Your task to perform on an android device: turn on javascript in the chrome app Image 0: 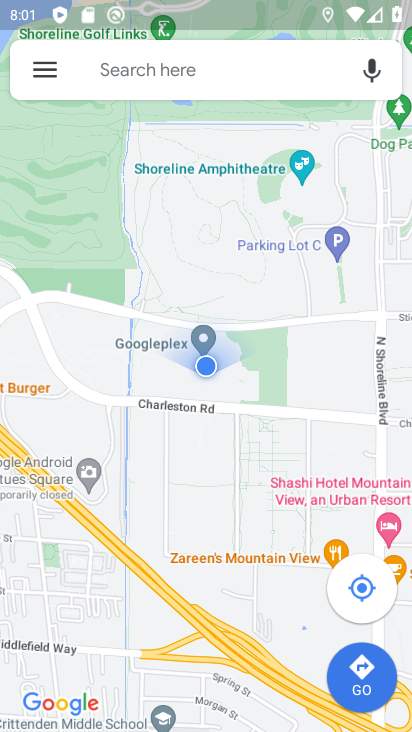
Step 0: press back button
Your task to perform on an android device: turn on javascript in the chrome app Image 1: 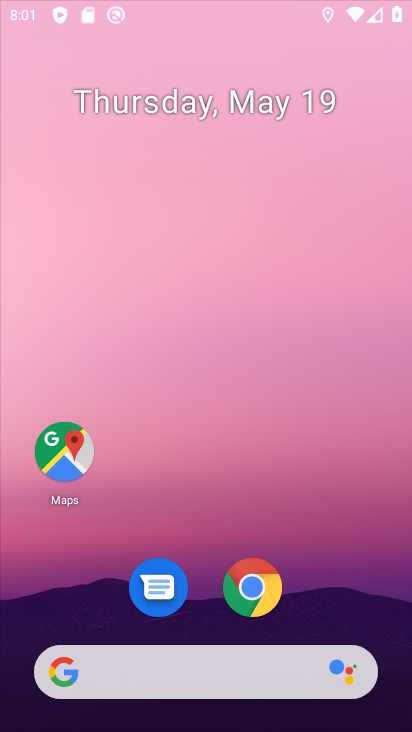
Step 1: press home button
Your task to perform on an android device: turn on javascript in the chrome app Image 2: 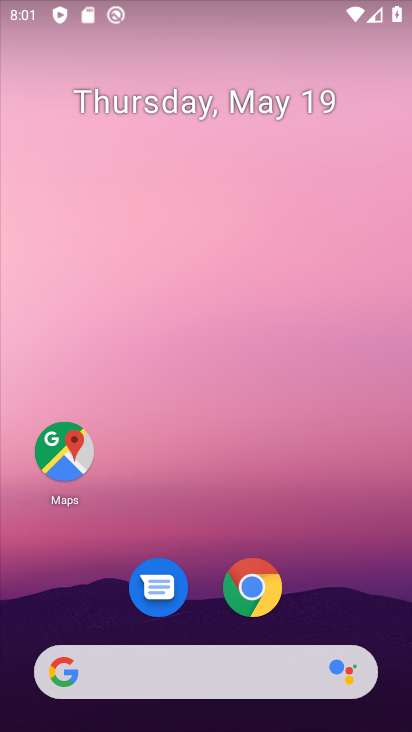
Step 2: press home button
Your task to perform on an android device: turn on javascript in the chrome app Image 3: 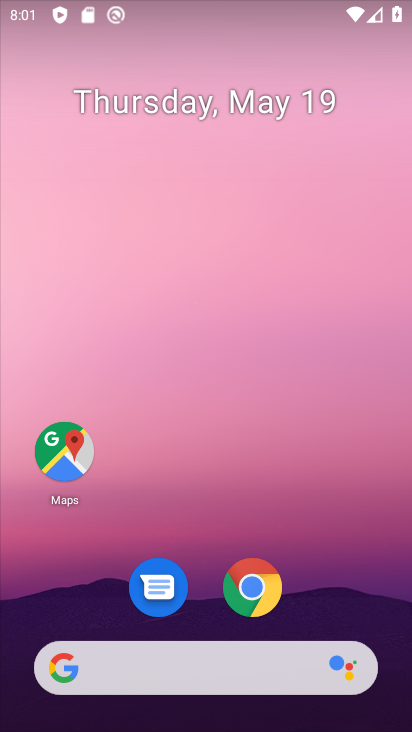
Step 3: drag from (308, 621) to (258, 21)
Your task to perform on an android device: turn on javascript in the chrome app Image 4: 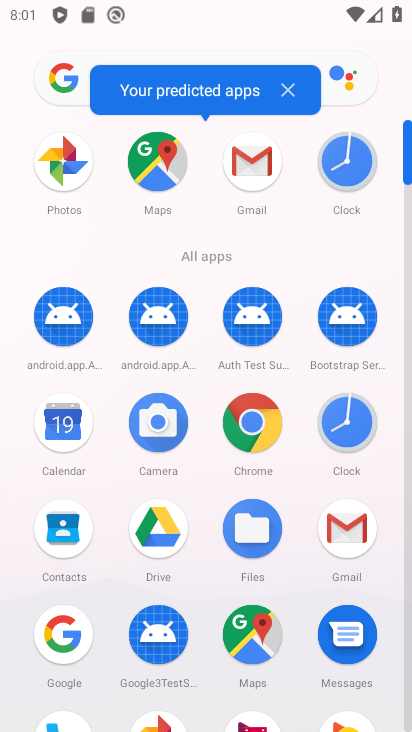
Step 4: click (262, 428)
Your task to perform on an android device: turn on javascript in the chrome app Image 5: 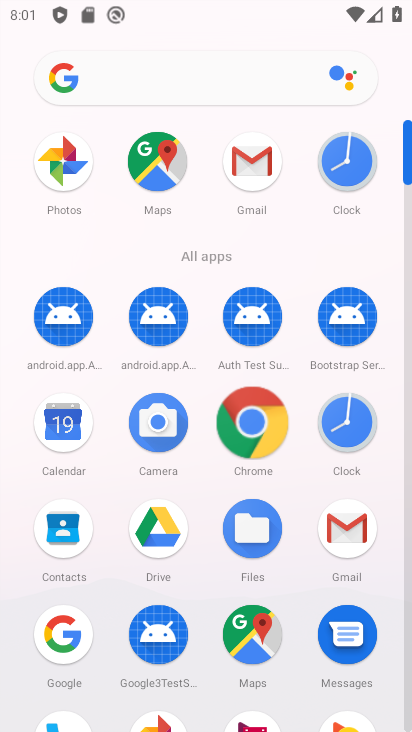
Step 5: click (246, 413)
Your task to perform on an android device: turn on javascript in the chrome app Image 6: 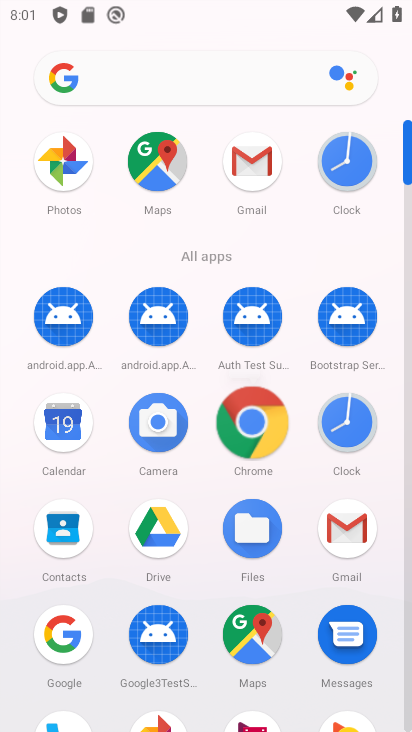
Step 6: click (246, 413)
Your task to perform on an android device: turn on javascript in the chrome app Image 7: 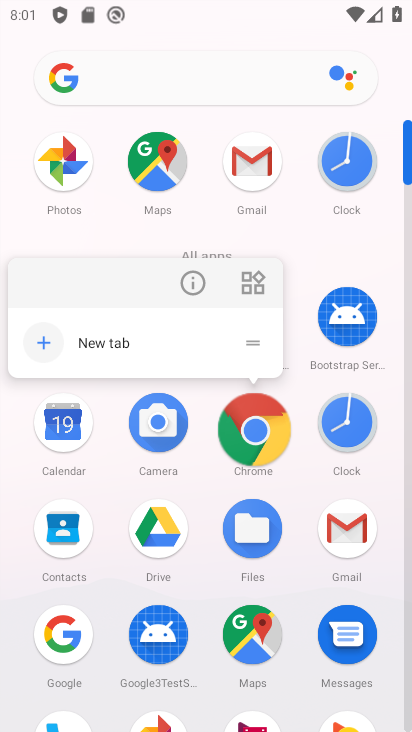
Step 7: click (252, 415)
Your task to perform on an android device: turn on javascript in the chrome app Image 8: 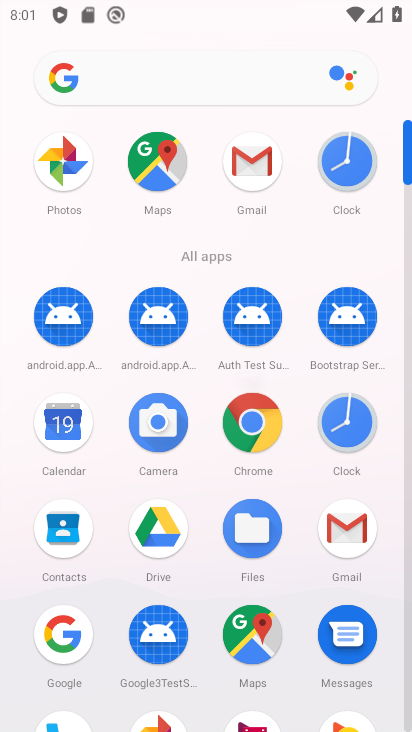
Step 8: click (252, 415)
Your task to perform on an android device: turn on javascript in the chrome app Image 9: 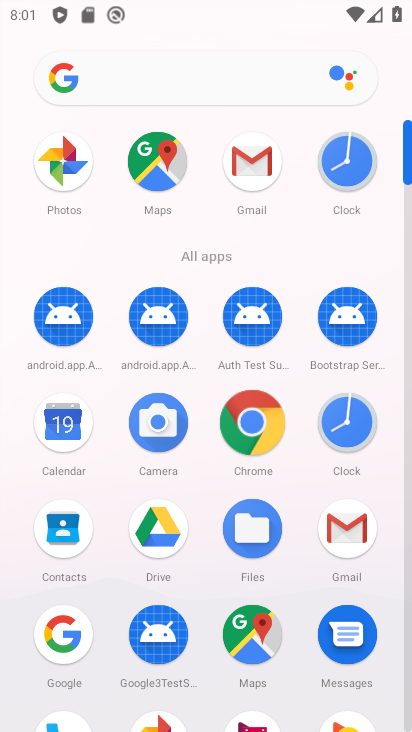
Step 9: click (254, 418)
Your task to perform on an android device: turn on javascript in the chrome app Image 10: 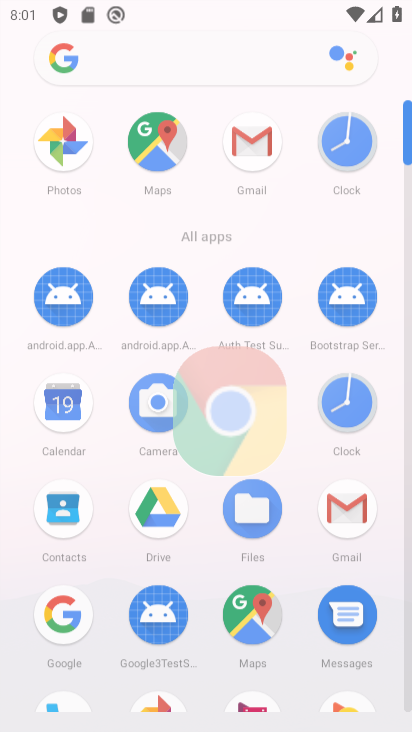
Step 10: click (254, 417)
Your task to perform on an android device: turn on javascript in the chrome app Image 11: 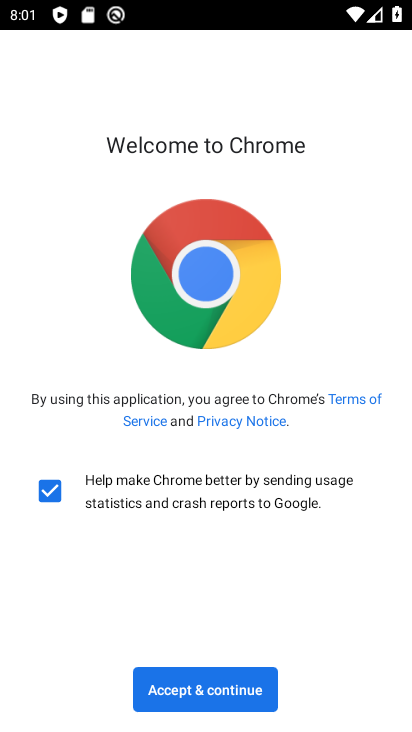
Step 11: click (213, 685)
Your task to perform on an android device: turn on javascript in the chrome app Image 12: 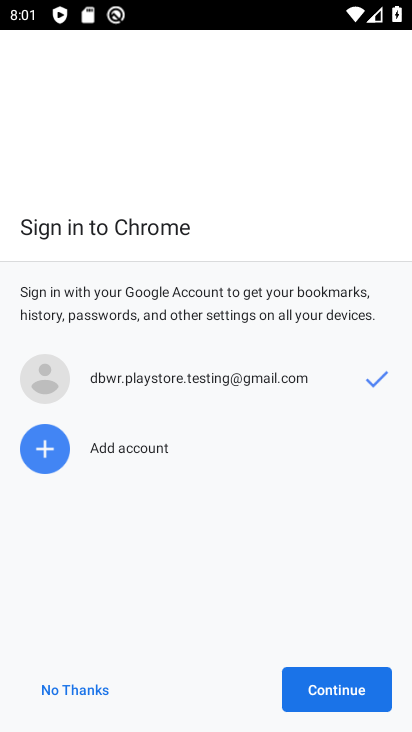
Step 12: click (215, 683)
Your task to perform on an android device: turn on javascript in the chrome app Image 13: 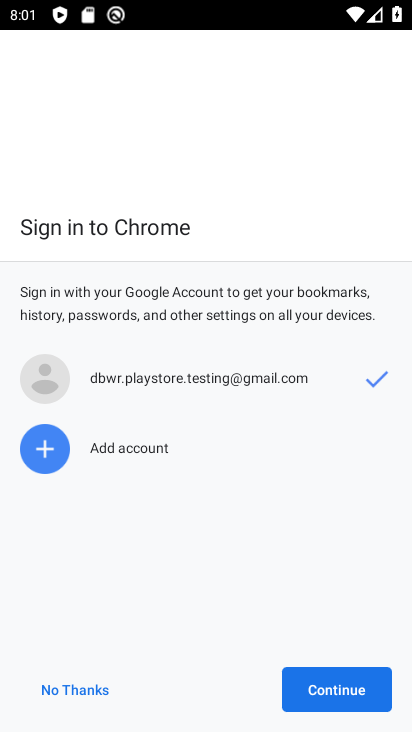
Step 13: click (316, 691)
Your task to perform on an android device: turn on javascript in the chrome app Image 14: 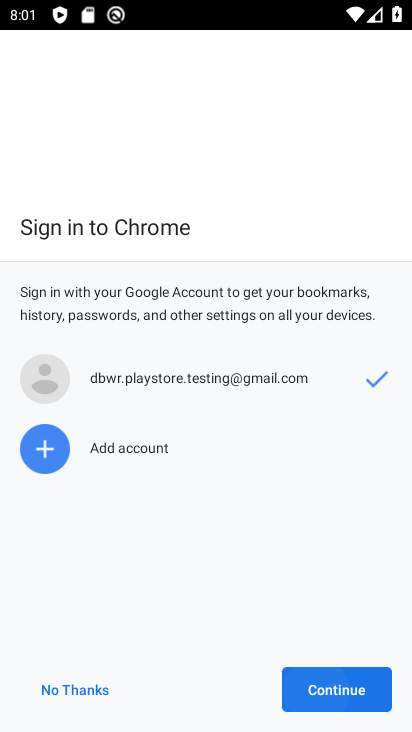
Step 14: click (322, 687)
Your task to perform on an android device: turn on javascript in the chrome app Image 15: 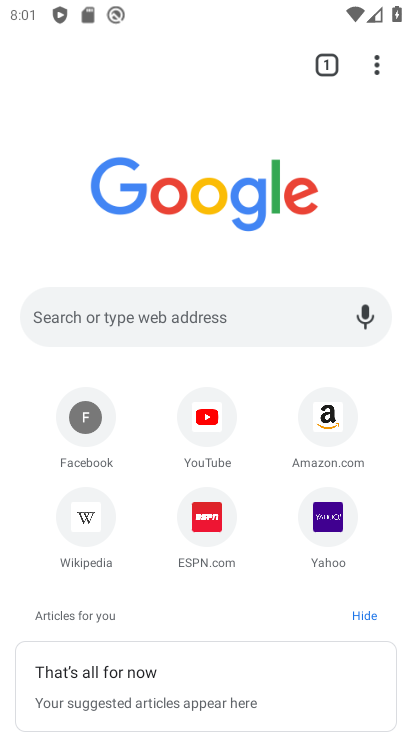
Step 15: drag from (373, 69) to (123, 541)
Your task to perform on an android device: turn on javascript in the chrome app Image 16: 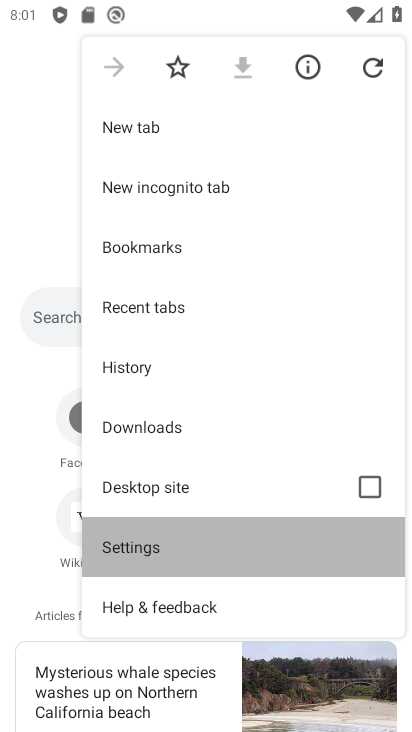
Step 16: click (124, 542)
Your task to perform on an android device: turn on javascript in the chrome app Image 17: 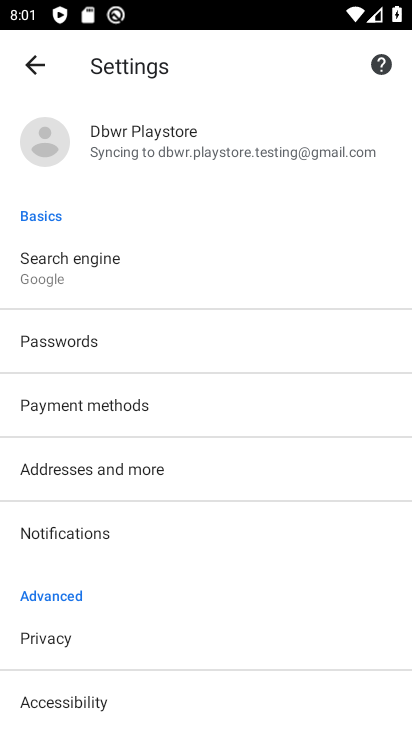
Step 17: drag from (158, 600) to (182, 169)
Your task to perform on an android device: turn on javascript in the chrome app Image 18: 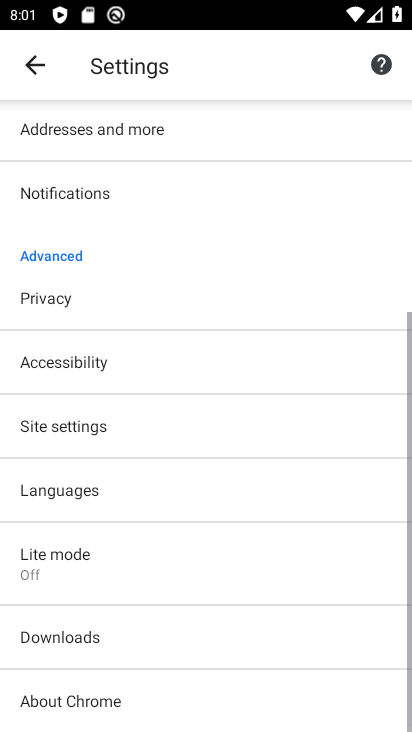
Step 18: drag from (166, 539) to (177, 226)
Your task to perform on an android device: turn on javascript in the chrome app Image 19: 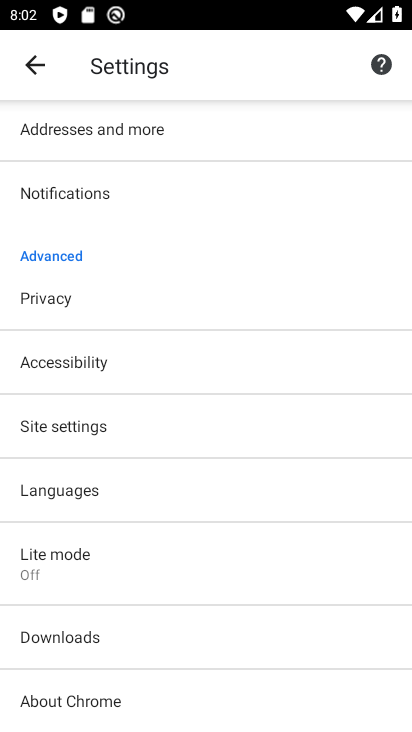
Step 19: click (63, 415)
Your task to perform on an android device: turn on javascript in the chrome app Image 20: 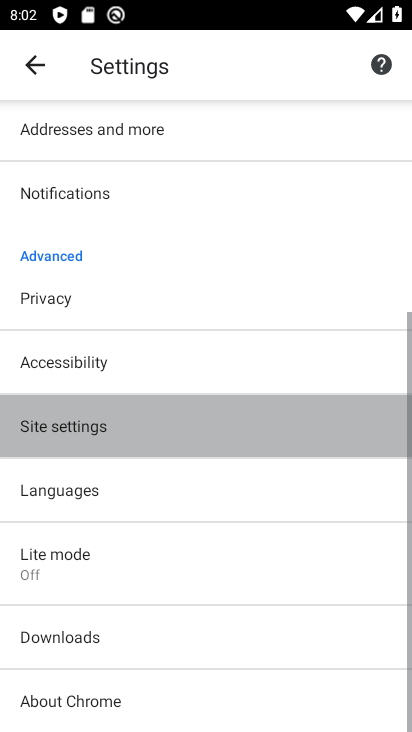
Step 20: click (63, 415)
Your task to perform on an android device: turn on javascript in the chrome app Image 21: 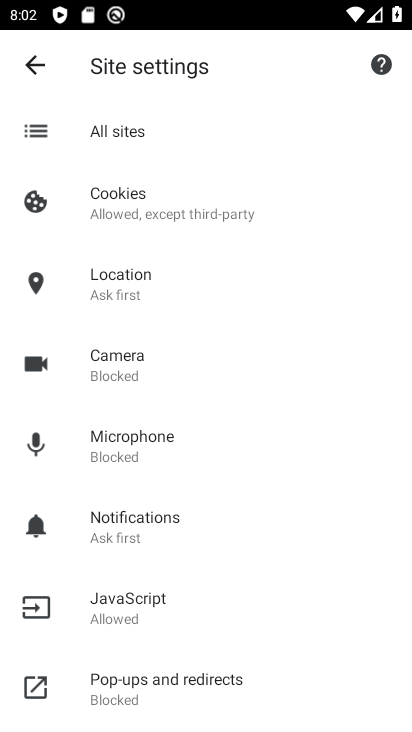
Step 21: click (131, 601)
Your task to perform on an android device: turn on javascript in the chrome app Image 22: 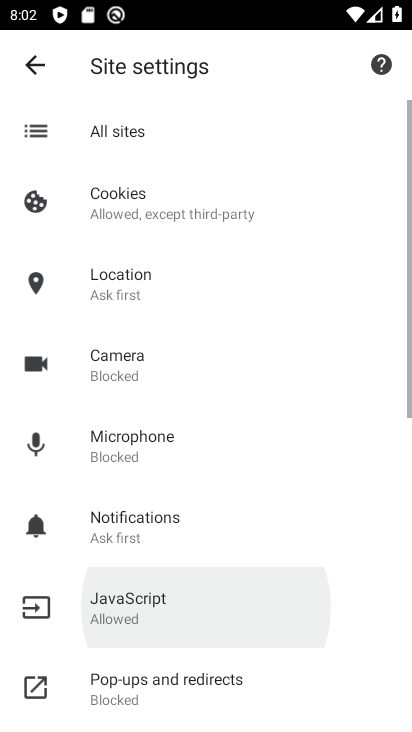
Step 22: click (132, 600)
Your task to perform on an android device: turn on javascript in the chrome app Image 23: 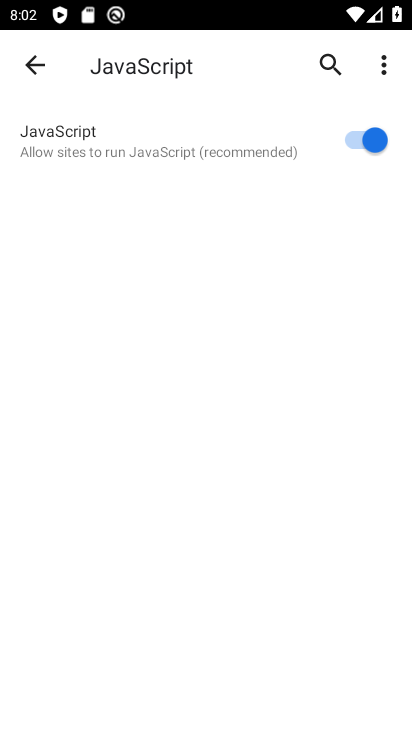
Step 23: task complete